Your task to perform on an android device: find snoozed emails in the gmail app Image 0: 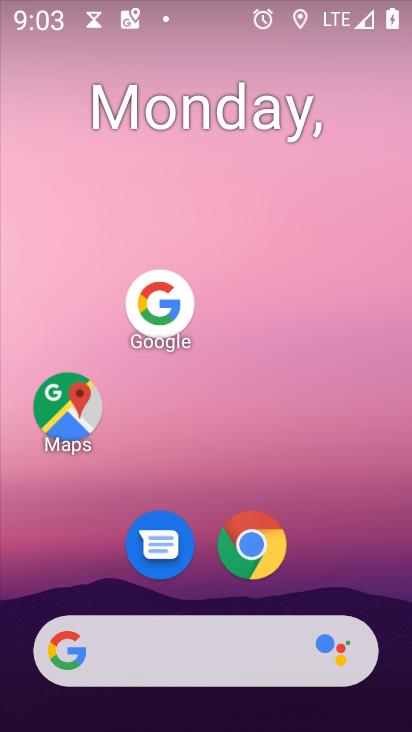
Step 0: press home button
Your task to perform on an android device: find snoozed emails in the gmail app Image 1: 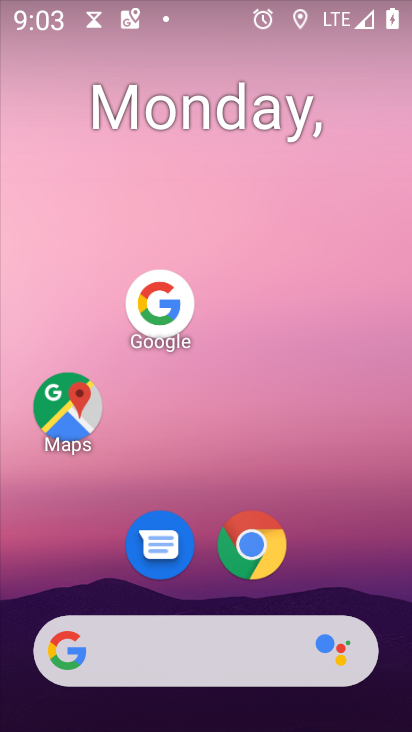
Step 1: drag from (182, 644) to (299, 111)
Your task to perform on an android device: find snoozed emails in the gmail app Image 2: 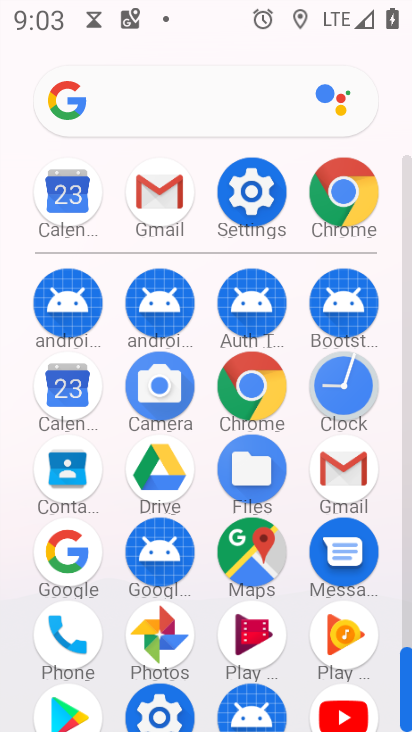
Step 2: click (157, 195)
Your task to perform on an android device: find snoozed emails in the gmail app Image 3: 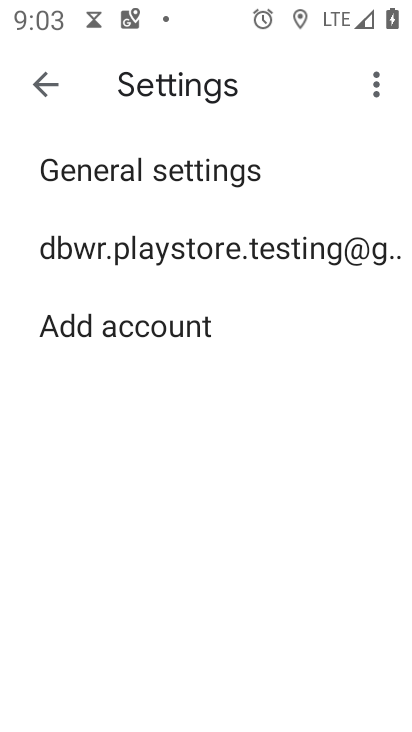
Step 3: click (43, 75)
Your task to perform on an android device: find snoozed emails in the gmail app Image 4: 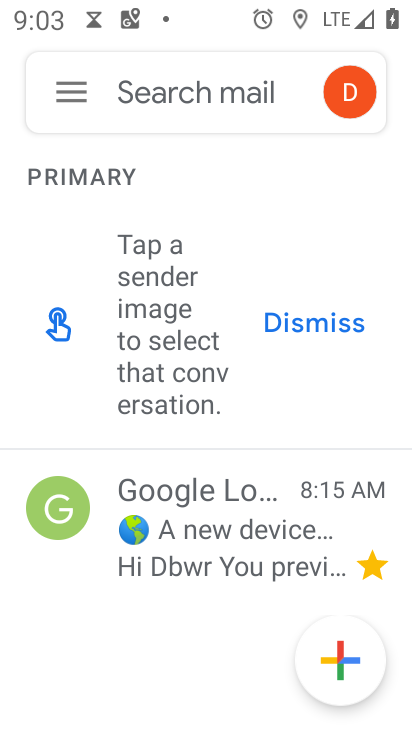
Step 4: click (71, 92)
Your task to perform on an android device: find snoozed emails in the gmail app Image 5: 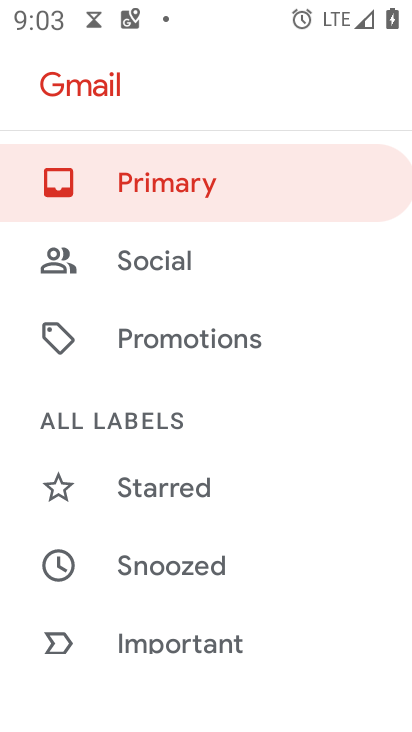
Step 5: click (207, 570)
Your task to perform on an android device: find snoozed emails in the gmail app Image 6: 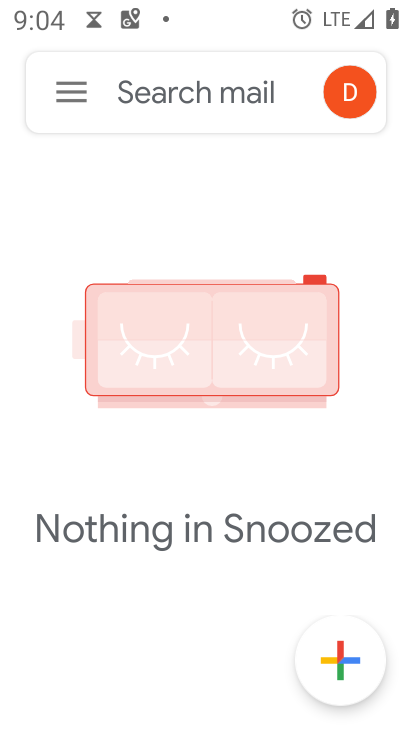
Step 6: task complete